Your task to perform on an android device: empty trash in the gmail app Image 0: 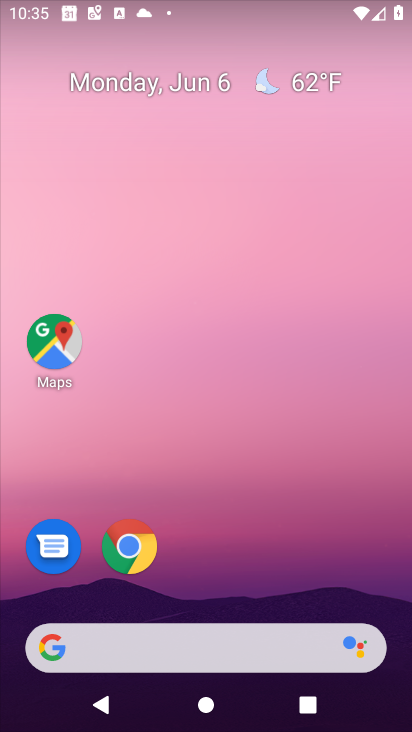
Step 0: drag from (380, 614) to (376, 75)
Your task to perform on an android device: empty trash in the gmail app Image 1: 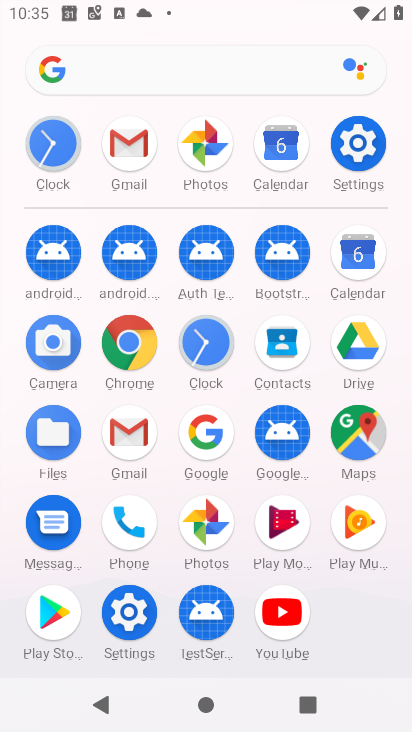
Step 1: click (130, 431)
Your task to perform on an android device: empty trash in the gmail app Image 2: 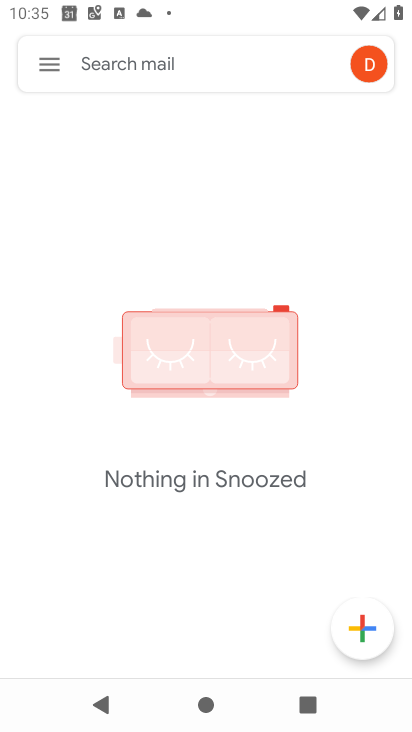
Step 2: click (49, 72)
Your task to perform on an android device: empty trash in the gmail app Image 3: 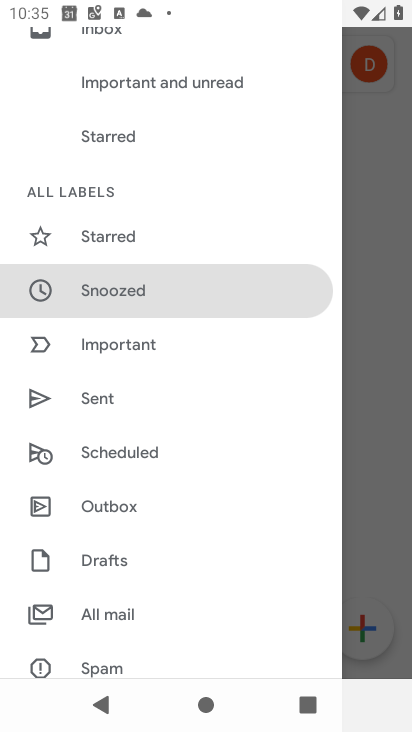
Step 3: drag from (214, 601) to (237, 315)
Your task to perform on an android device: empty trash in the gmail app Image 4: 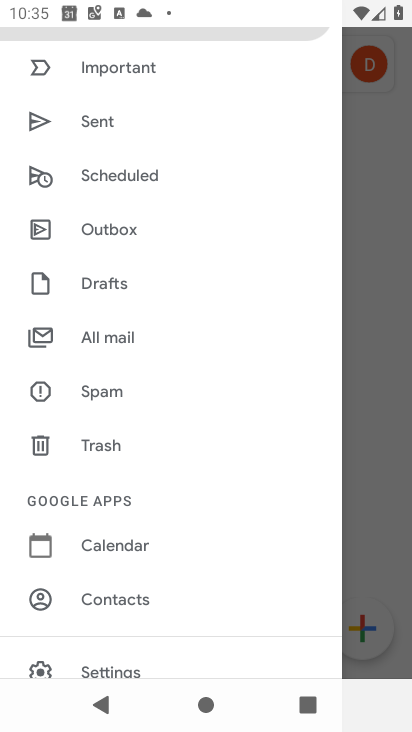
Step 4: click (108, 443)
Your task to perform on an android device: empty trash in the gmail app Image 5: 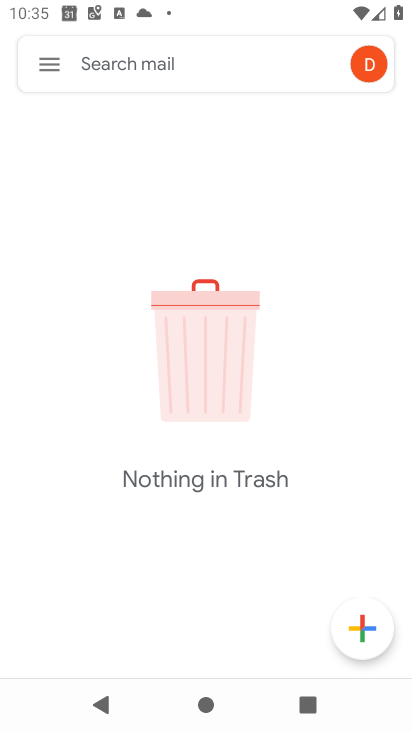
Step 5: task complete